Your task to perform on an android device: turn notification dots off Image 0: 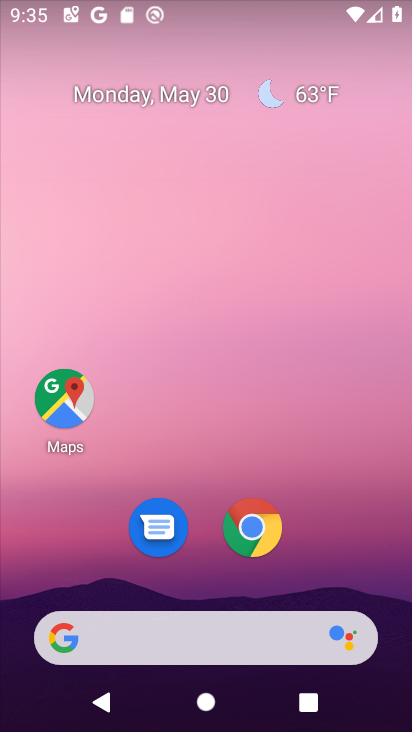
Step 0: drag from (258, 547) to (296, 181)
Your task to perform on an android device: turn notification dots off Image 1: 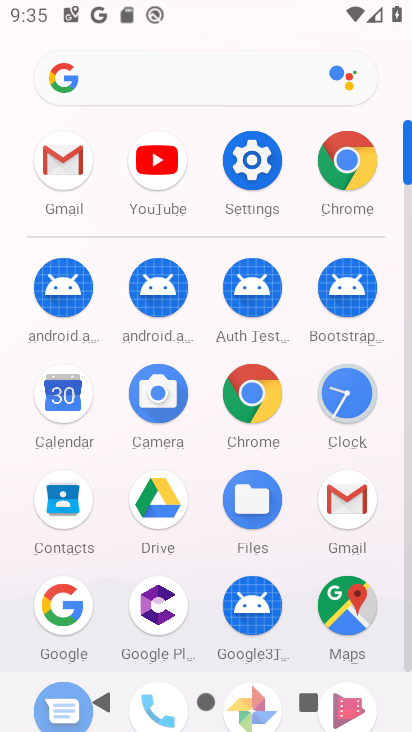
Step 1: click (231, 167)
Your task to perform on an android device: turn notification dots off Image 2: 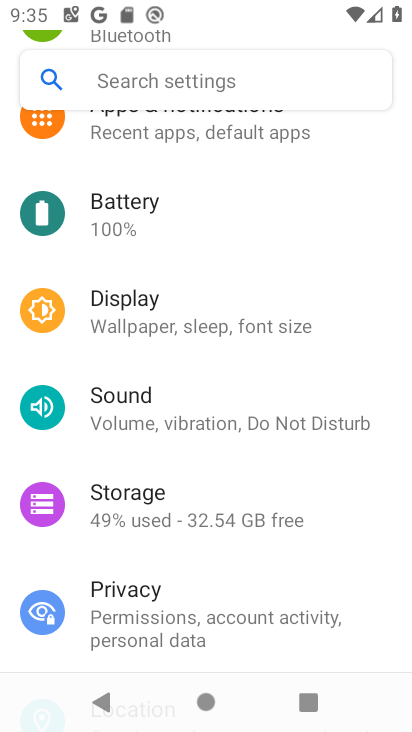
Step 2: click (166, 63)
Your task to perform on an android device: turn notification dots off Image 3: 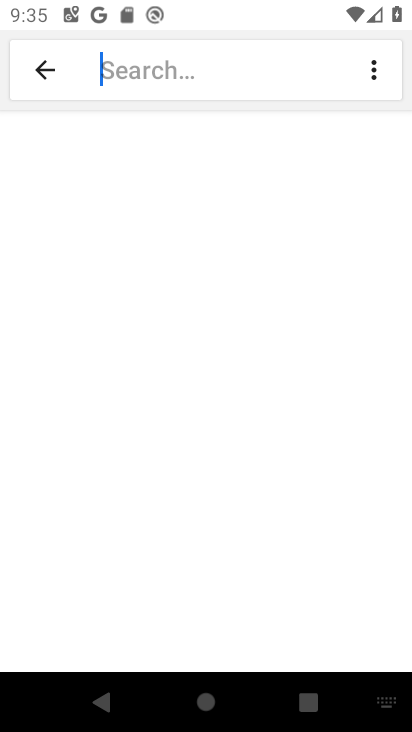
Step 3: click (242, 54)
Your task to perform on an android device: turn notification dots off Image 4: 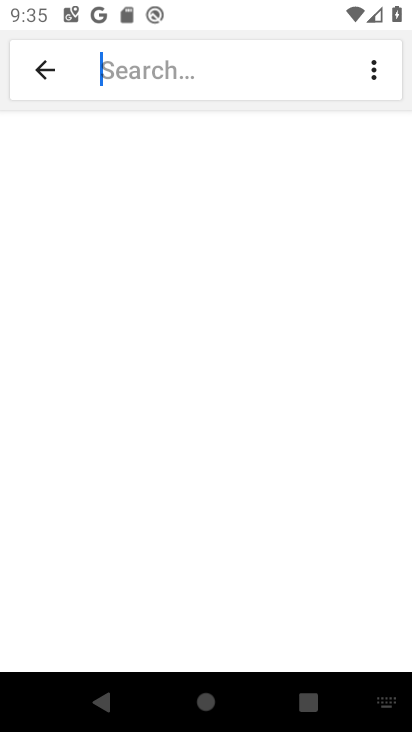
Step 4: type "notification dots "
Your task to perform on an android device: turn notification dots off Image 5: 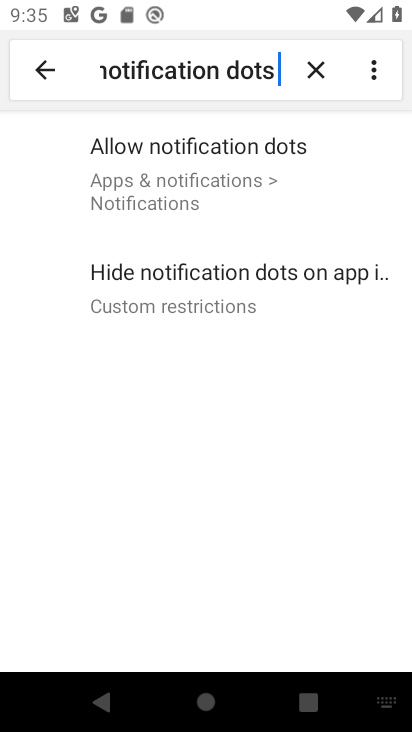
Step 5: click (194, 164)
Your task to perform on an android device: turn notification dots off Image 6: 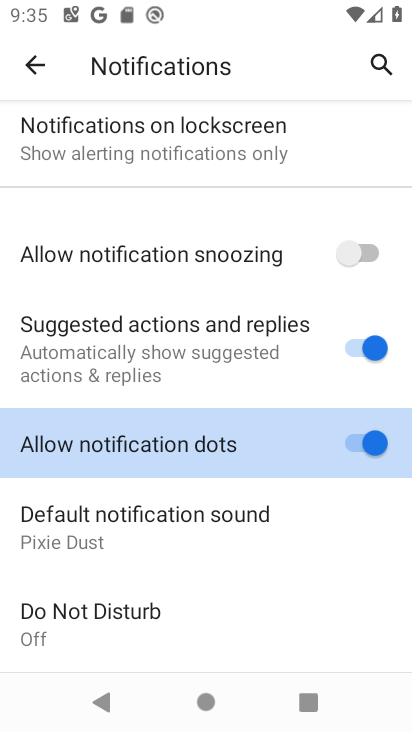
Step 6: click (359, 443)
Your task to perform on an android device: turn notification dots off Image 7: 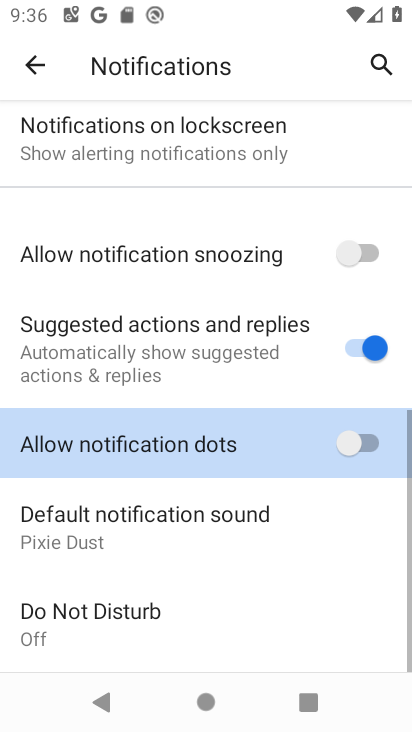
Step 7: task complete